Your task to perform on an android device: Open ESPN.com Image 0: 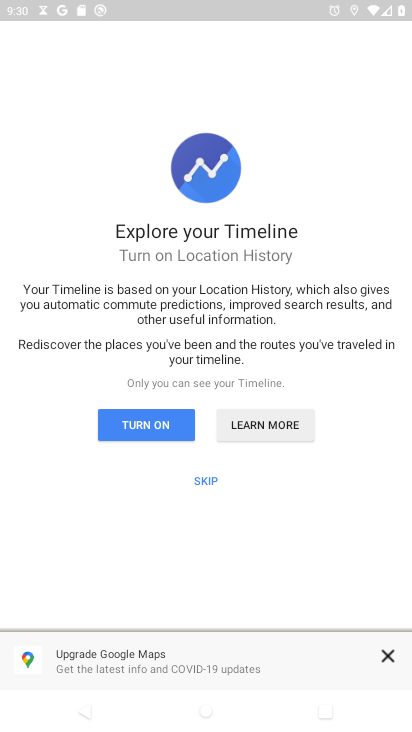
Step 0: press home button
Your task to perform on an android device: Open ESPN.com Image 1: 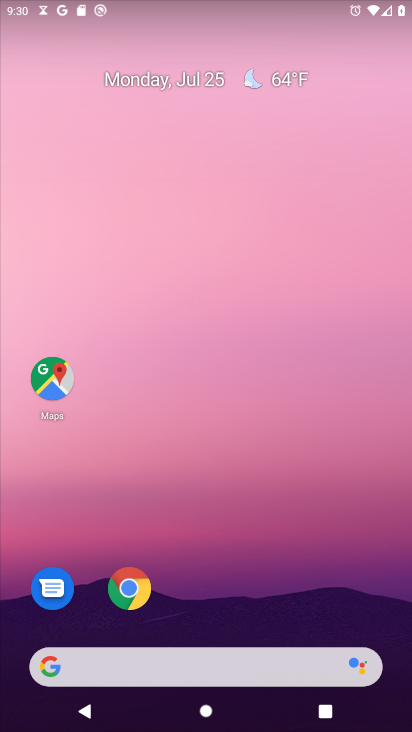
Step 1: click (142, 599)
Your task to perform on an android device: Open ESPN.com Image 2: 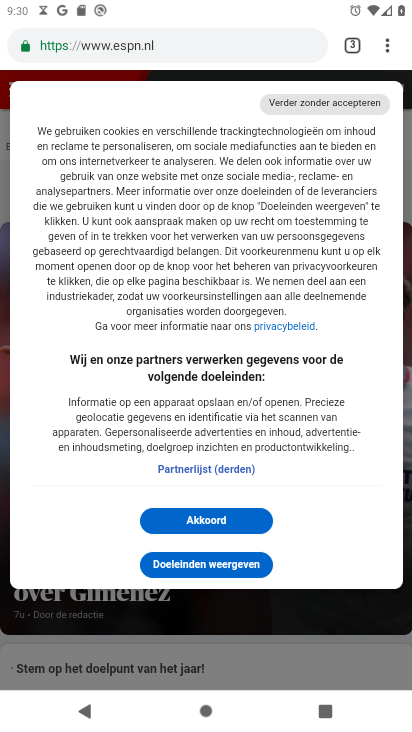
Step 2: task complete